Your task to perform on an android device: Open settings Image 0: 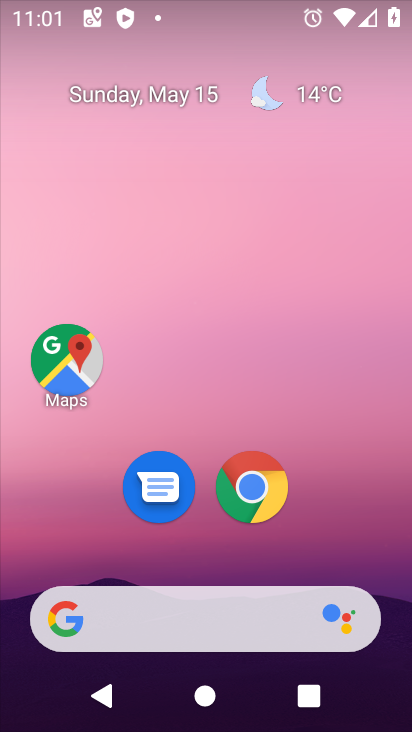
Step 0: drag from (395, 616) to (348, 124)
Your task to perform on an android device: Open settings Image 1: 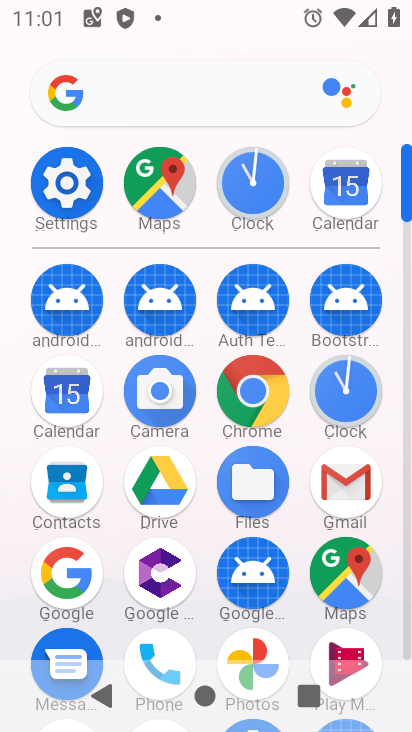
Step 1: click (406, 645)
Your task to perform on an android device: Open settings Image 2: 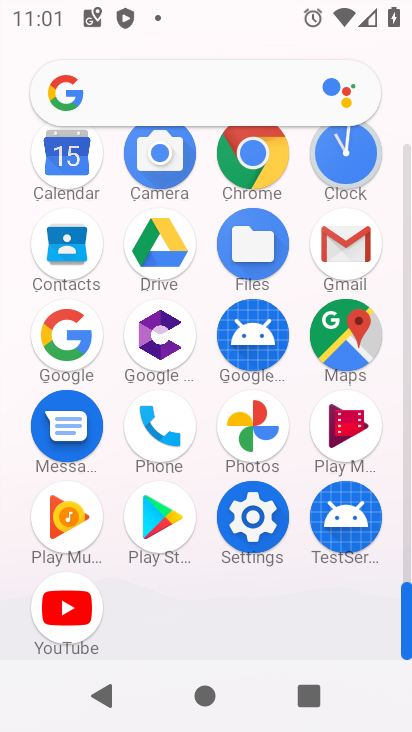
Step 2: click (252, 516)
Your task to perform on an android device: Open settings Image 3: 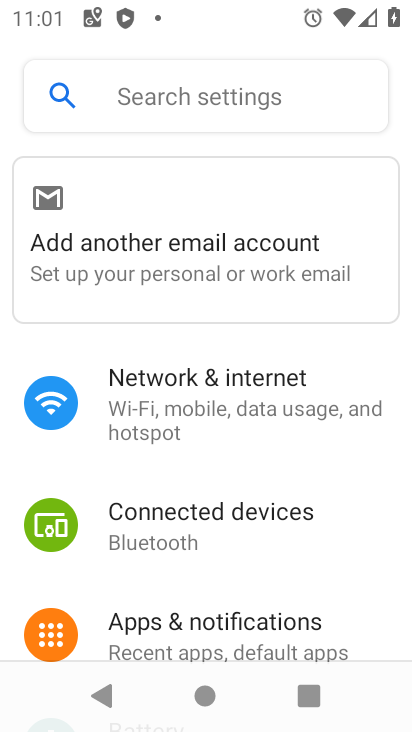
Step 3: task complete